Your task to perform on an android device: open app "Google Photos" Image 0: 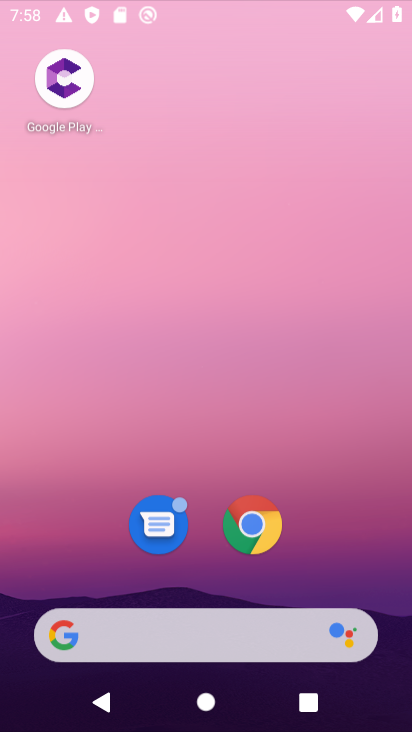
Step 0: drag from (200, 594) to (239, 62)
Your task to perform on an android device: open app "Google Photos" Image 1: 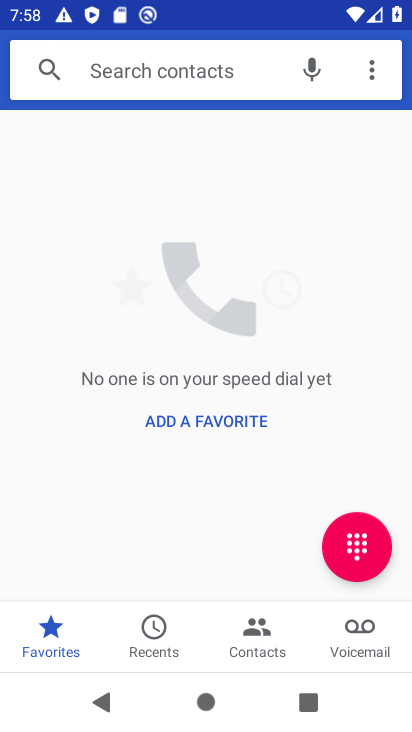
Step 1: press back button
Your task to perform on an android device: open app "Google Photos" Image 2: 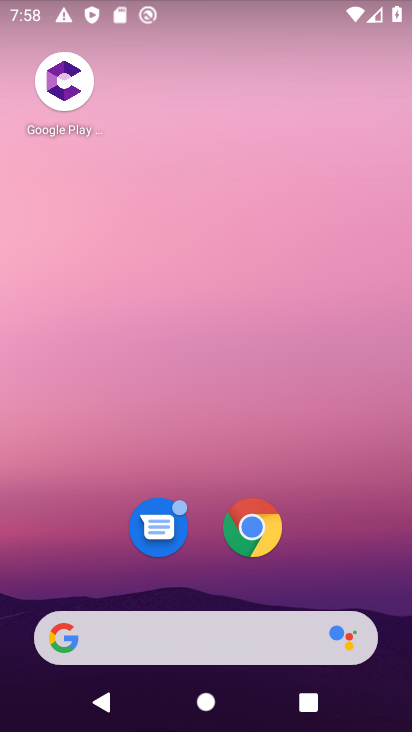
Step 2: drag from (174, 554) to (208, 0)
Your task to perform on an android device: open app "Google Photos" Image 3: 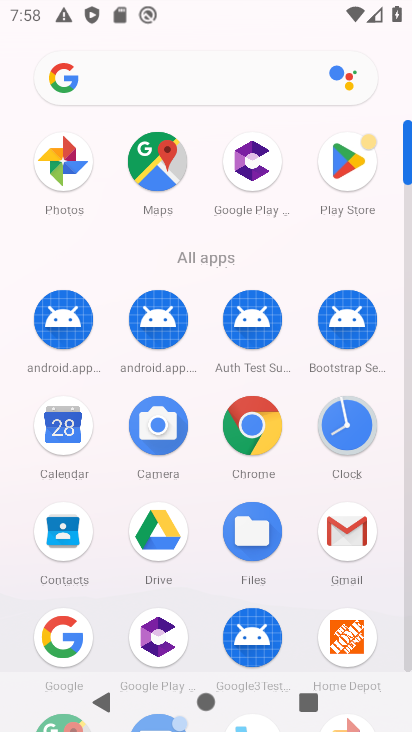
Step 3: click (67, 162)
Your task to perform on an android device: open app "Google Photos" Image 4: 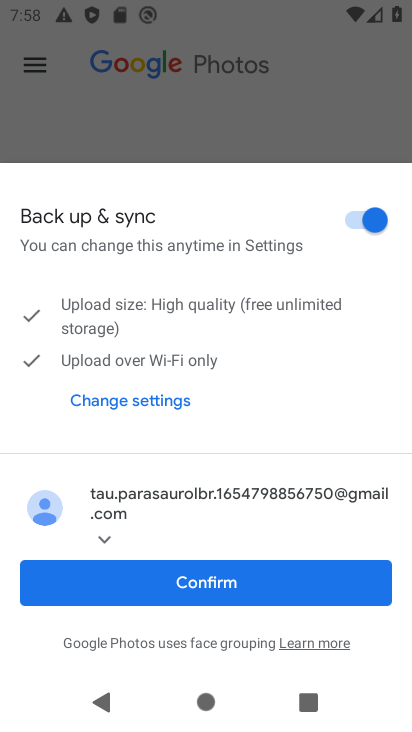
Step 4: click (185, 581)
Your task to perform on an android device: open app "Google Photos" Image 5: 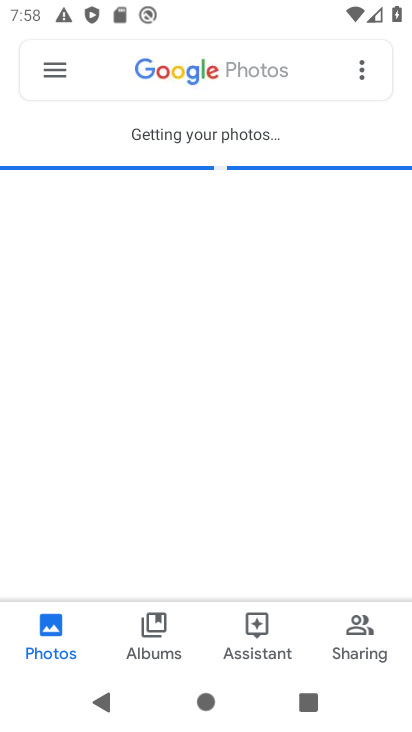
Step 5: task complete